Your task to perform on an android device: Open Android settings Image 0: 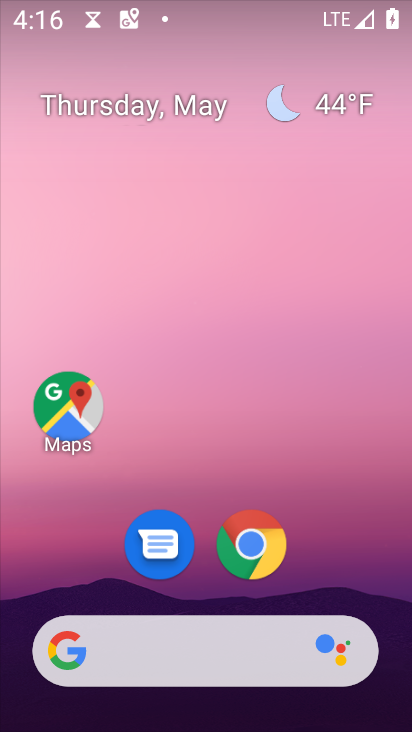
Step 0: drag from (309, 606) to (311, 64)
Your task to perform on an android device: Open Android settings Image 1: 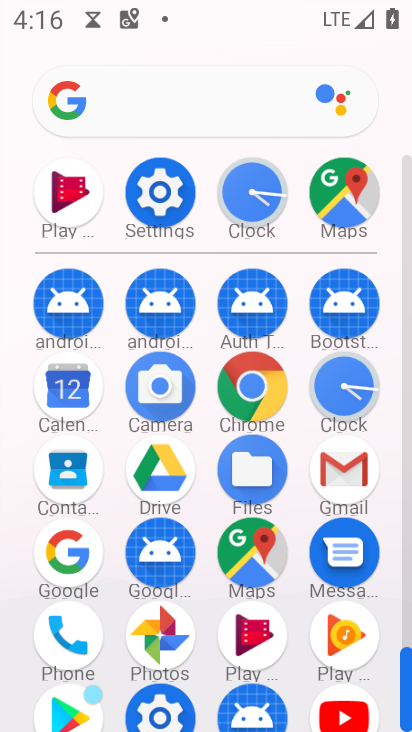
Step 1: click (164, 188)
Your task to perform on an android device: Open Android settings Image 2: 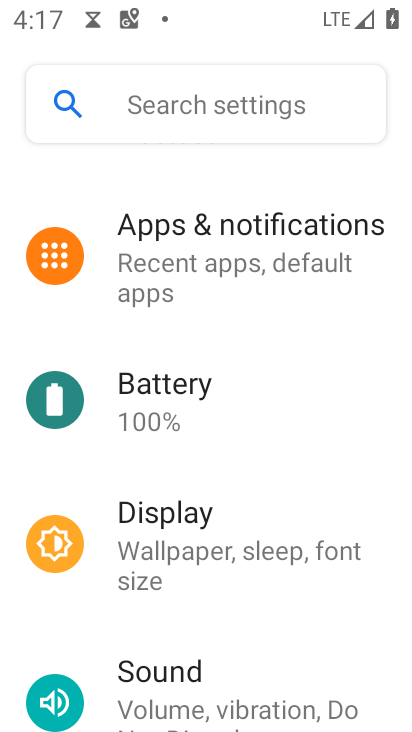
Step 2: drag from (165, 636) to (220, 234)
Your task to perform on an android device: Open Android settings Image 3: 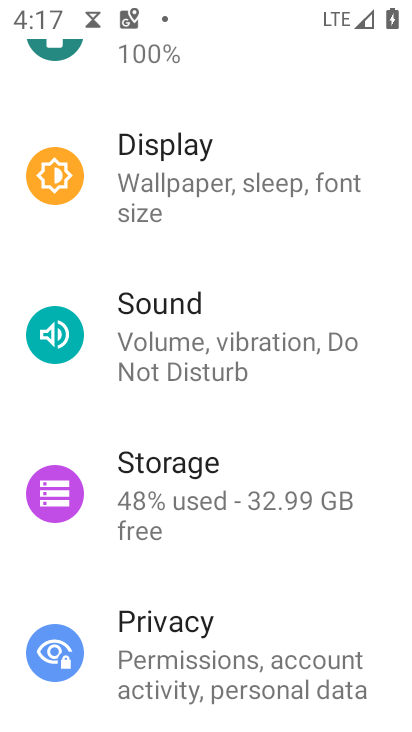
Step 3: drag from (194, 671) to (184, 379)
Your task to perform on an android device: Open Android settings Image 4: 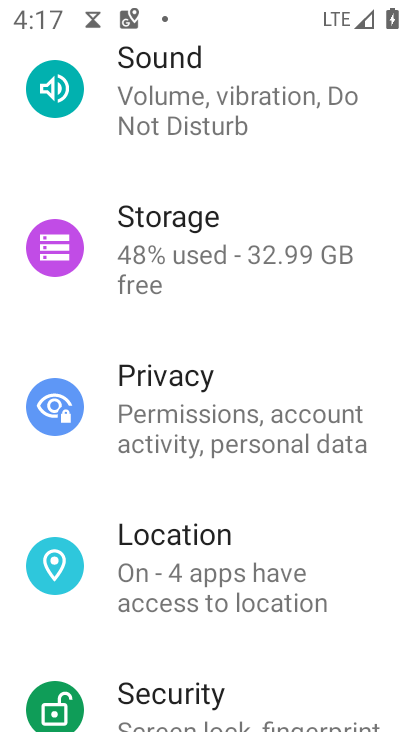
Step 4: drag from (254, 638) to (265, 362)
Your task to perform on an android device: Open Android settings Image 5: 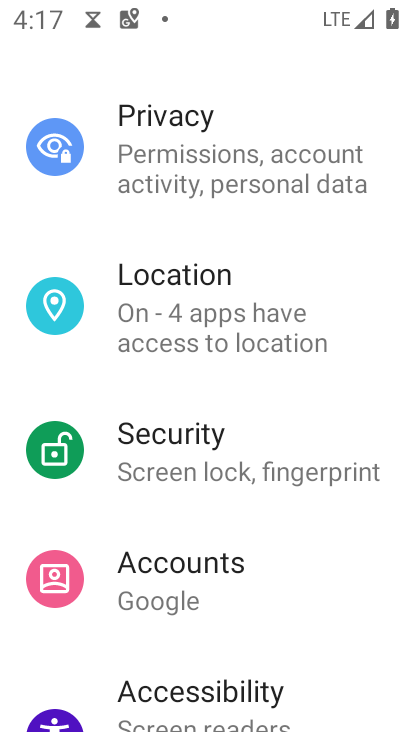
Step 5: drag from (231, 628) to (233, 335)
Your task to perform on an android device: Open Android settings Image 6: 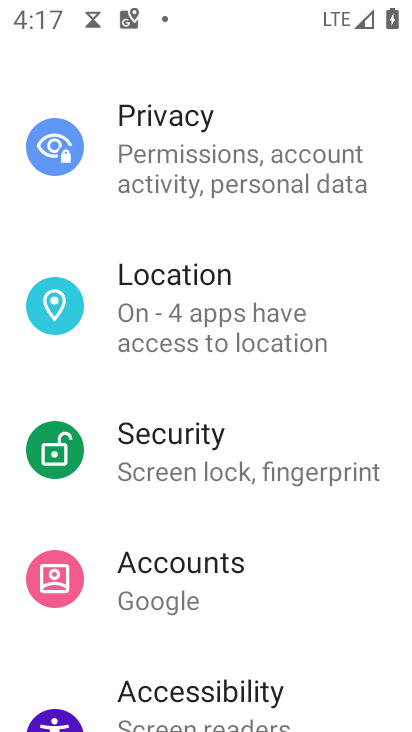
Step 6: drag from (166, 645) to (207, 371)
Your task to perform on an android device: Open Android settings Image 7: 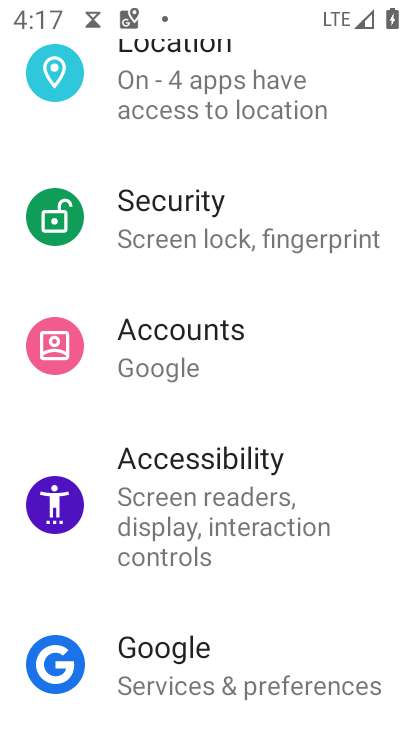
Step 7: drag from (211, 663) to (252, 368)
Your task to perform on an android device: Open Android settings Image 8: 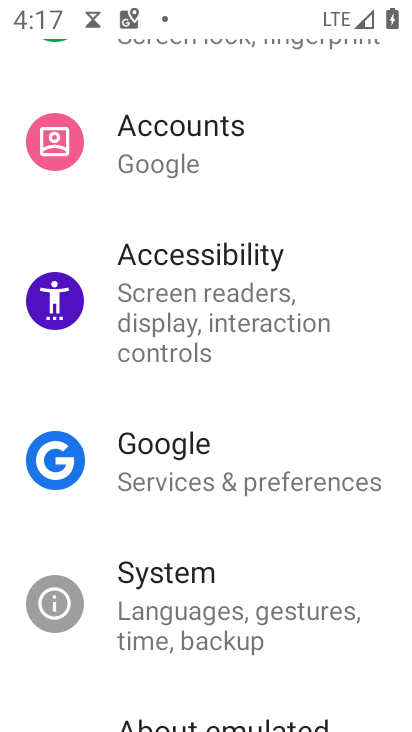
Step 8: click (215, 609)
Your task to perform on an android device: Open Android settings Image 9: 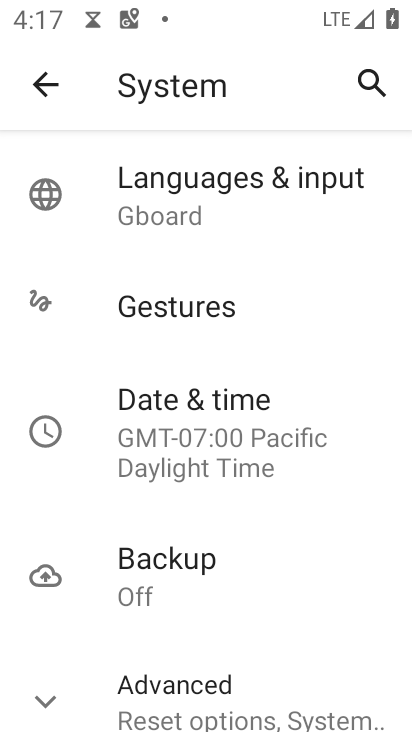
Step 9: task complete